Your task to perform on an android device: add a label to a message in the gmail app Image 0: 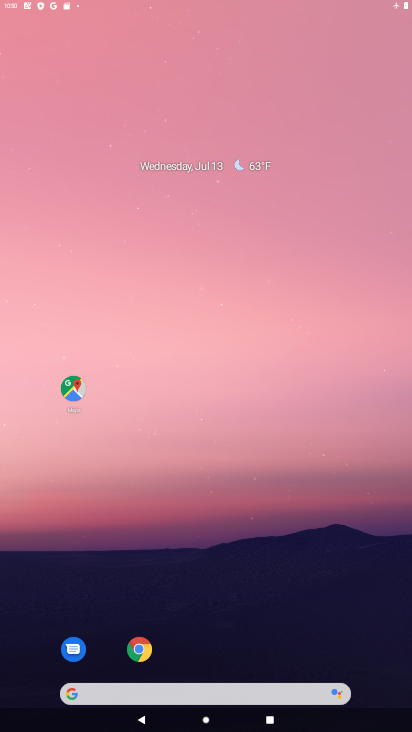
Step 0: click (290, 238)
Your task to perform on an android device: add a label to a message in the gmail app Image 1: 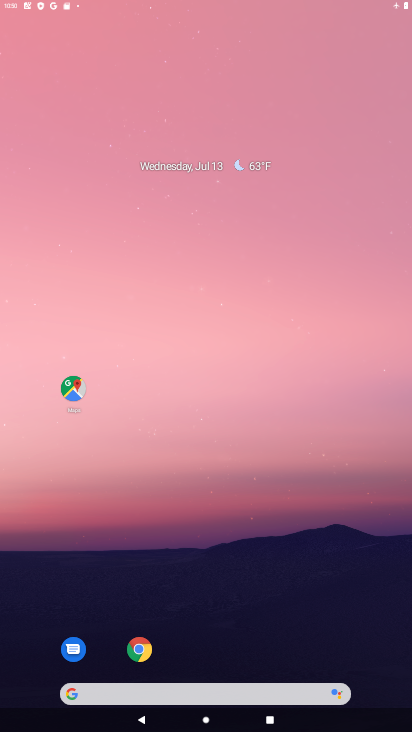
Step 1: drag from (205, 656) to (219, 324)
Your task to perform on an android device: add a label to a message in the gmail app Image 2: 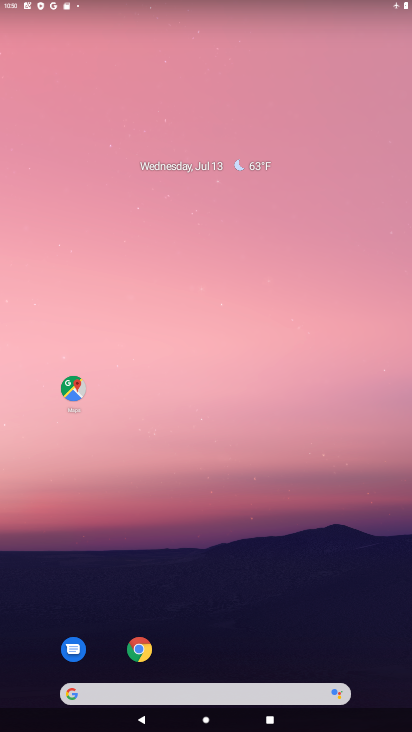
Step 2: drag from (194, 555) to (229, 179)
Your task to perform on an android device: add a label to a message in the gmail app Image 3: 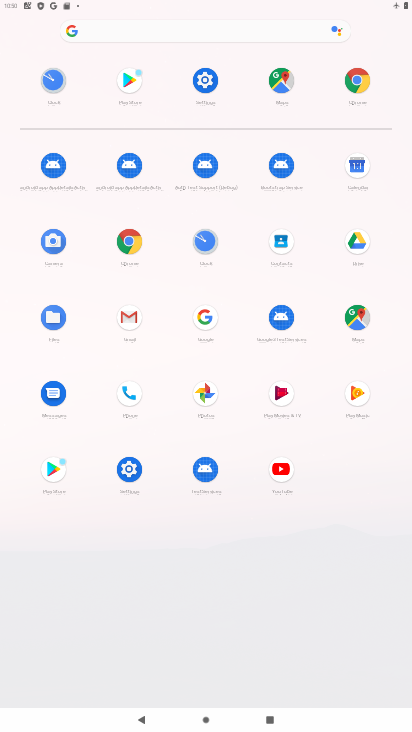
Step 3: click (123, 307)
Your task to perform on an android device: add a label to a message in the gmail app Image 4: 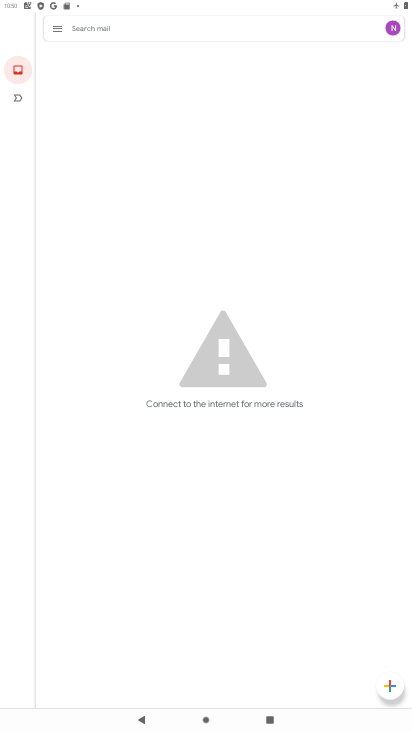
Step 4: click (49, 23)
Your task to perform on an android device: add a label to a message in the gmail app Image 5: 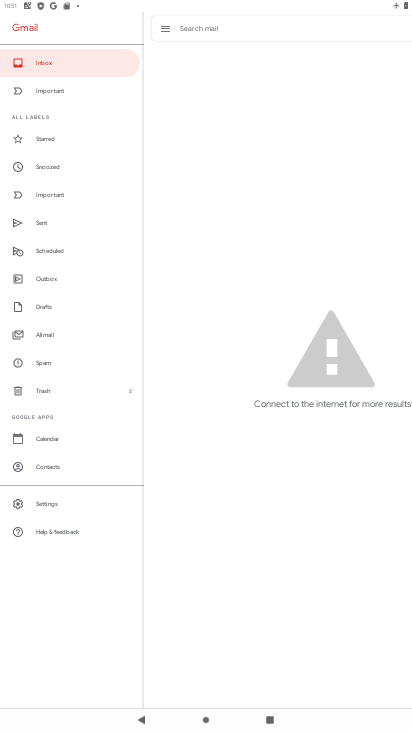
Step 5: click (46, 335)
Your task to perform on an android device: add a label to a message in the gmail app Image 6: 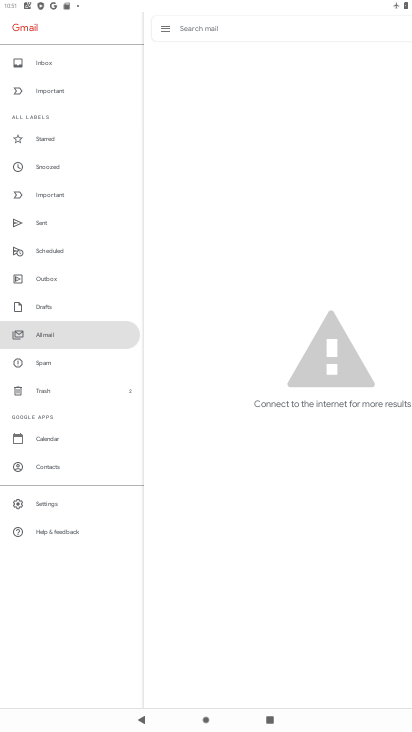
Step 6: task complete